Your task to perform on an android device: What's the weather going to be tomorrow? Image 0: 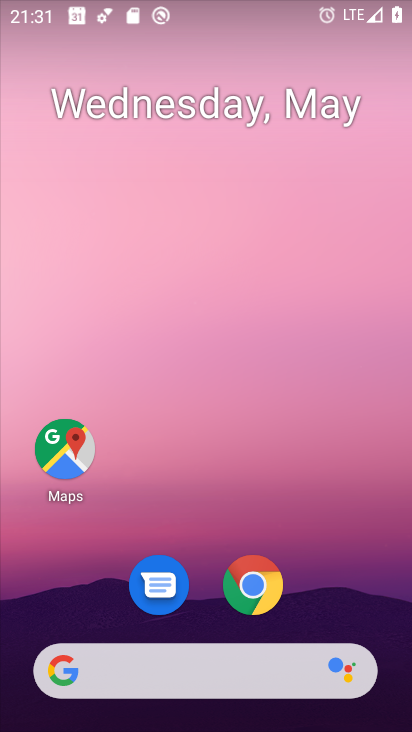
Step 0: click (251, 674)
Your task to perform on an android device: What's the weather going to be tomorrow? Image 1: 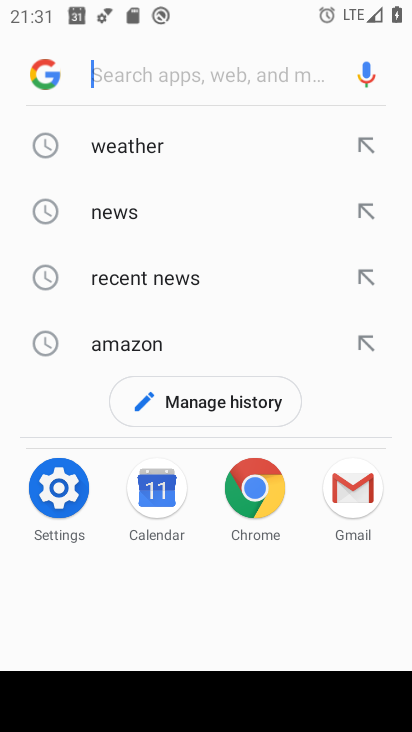
Step 1: click (98, 133)
Your task to perform on an android device: What's the weather going to be tomorrow? Image 2: 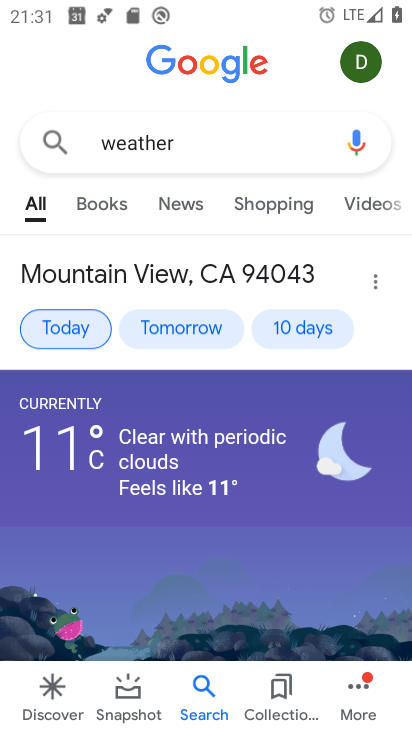
Step 2: click (81, 322)
Your task to perform on an android device: What's the weather going to be tomorrow? Image 3: 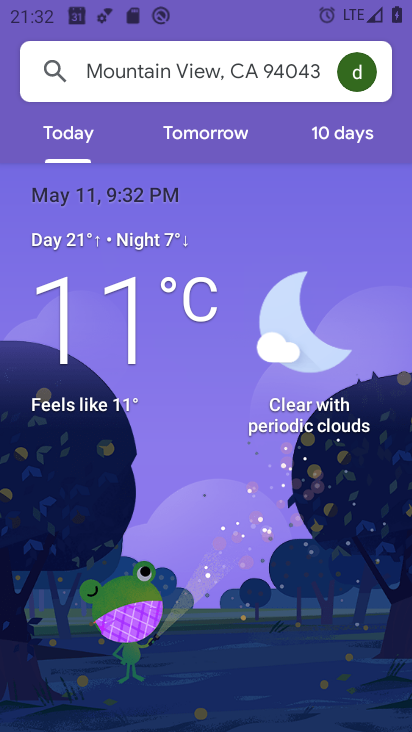
Step 3: click (224, 121)
Your task to perform on an android device: What's the weather going to be tomorrow? Image 4: 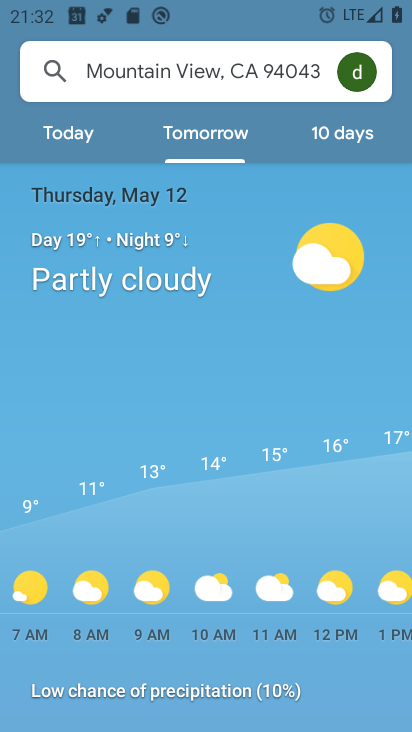
Step 4: task complete